Your task to perform on an android device: Open the calendar and show me this week's events Image 0: 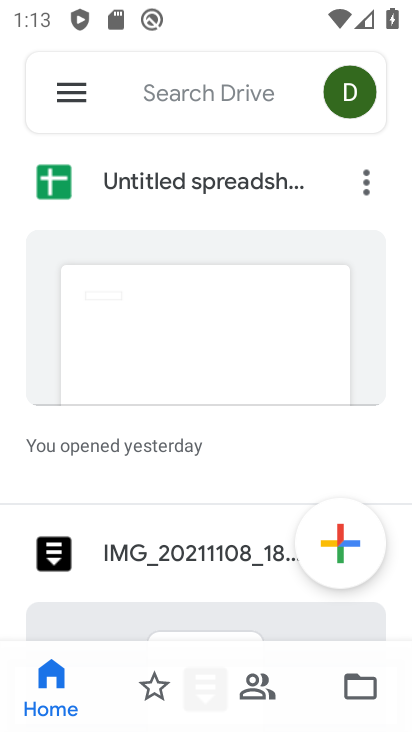
Step 0: press home button
Your task to perform on an android device: Open the calendar and show me this week's events Image 1: 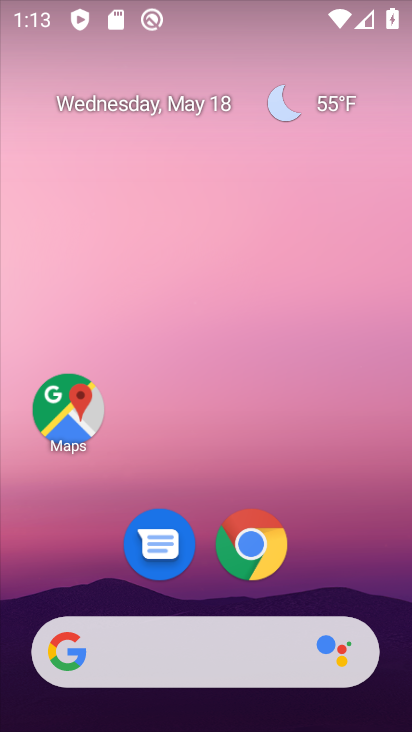
Step 1: click (187, 105)
Your task to perform on an android device: Open the calendar and show me this week's events Image 2: 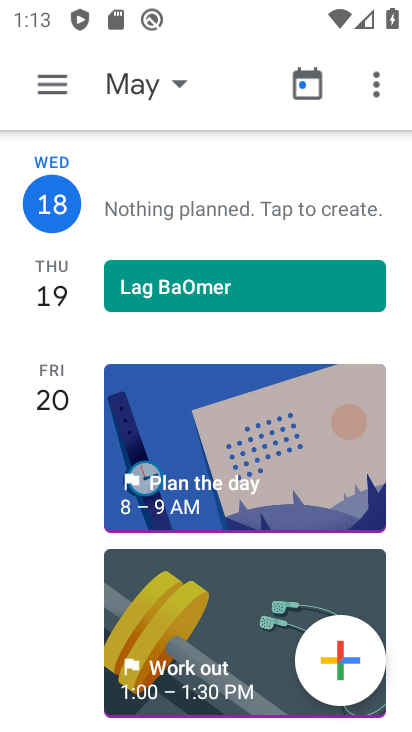
Step 2: click (44, 83)
Your task to perform on an android device: Open the calendar and show me this week's events Image 3: 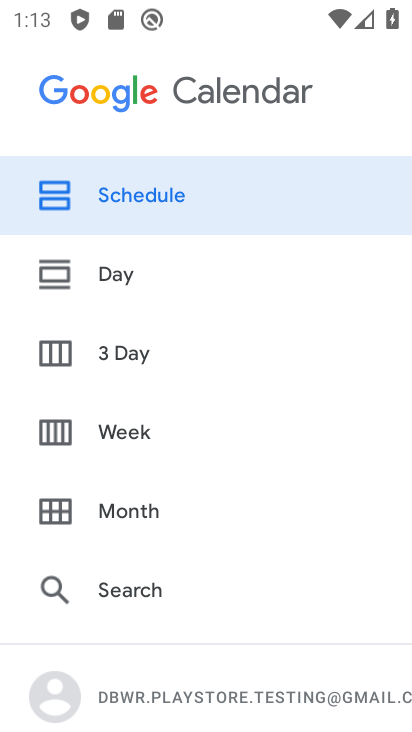
Step 3: drag from (208, 584) to (228, 141)
Your task to perform on an android device: Open the calendar and show me this week's events Image 4: 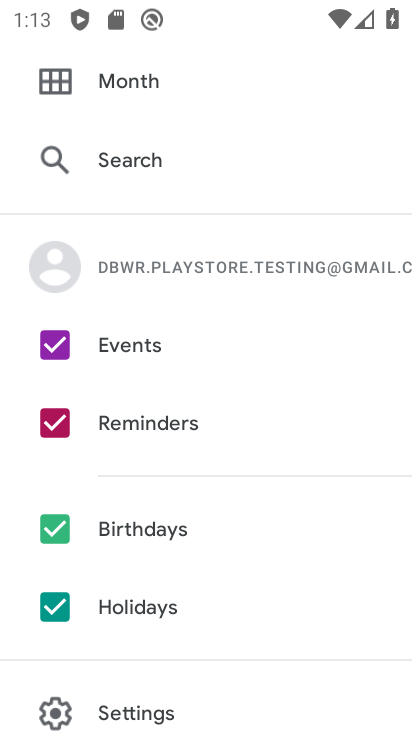
Step 4: click (61, 434)
Your task to perform on an android device: Open the calendar and show me this week's events Image 5: 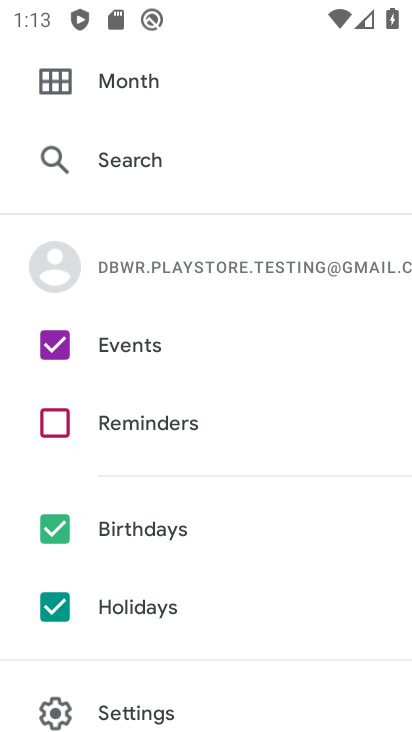
Step 5: click (50, 532)
Your task to perform on an android device: Open the calendar and show me this week's events Image 6: 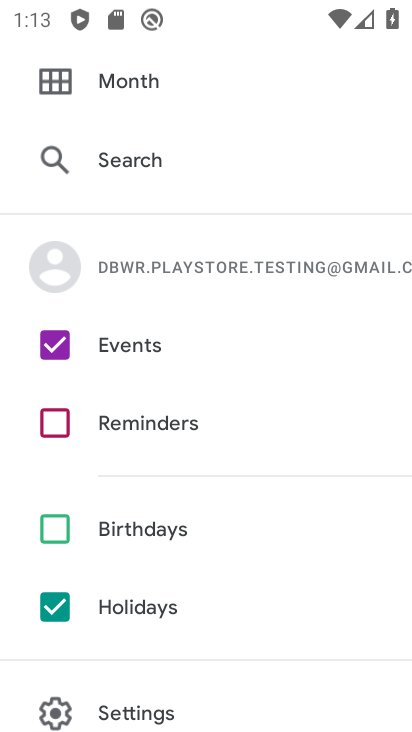
Step 6: click (58, 597)
Your task to perform on an android device: Open the calendar and show me this week's events Image 7: 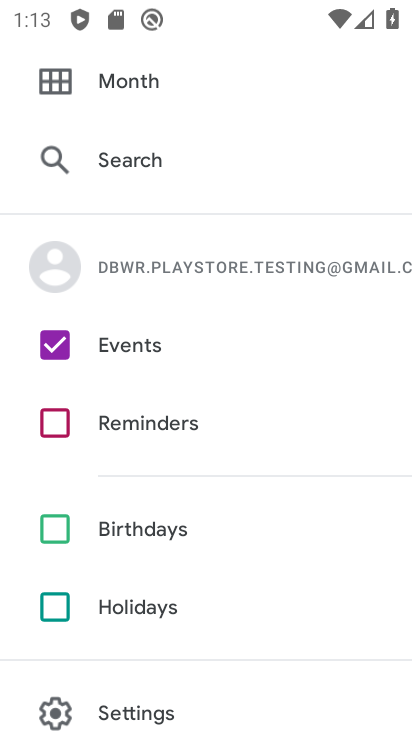
Step 7: drag from (250, 170) to (261, 616)
Your task to perform on an android device: Open the calendar and show me this week's events Image 8: 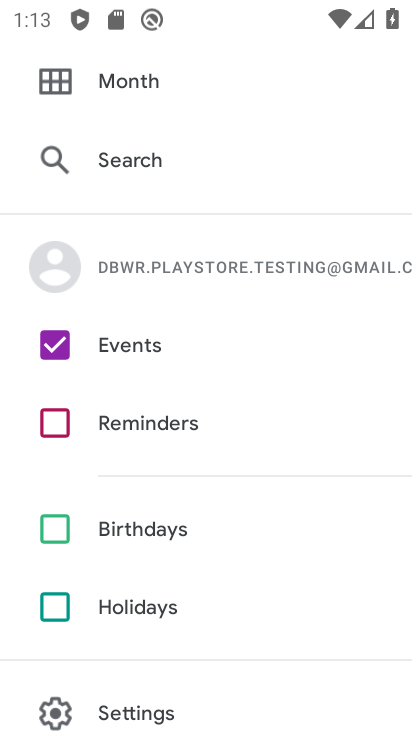
Step 8: drag from (283, 98) to (352, 540)
Your task to perform on an android device: Open the calendar and show me this week's events Image 9: 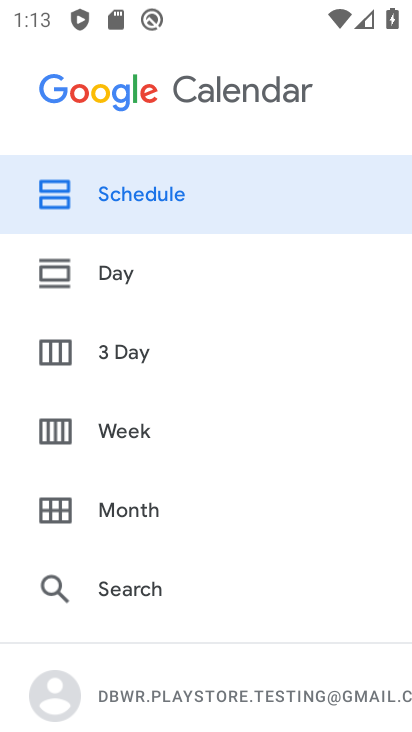
Step 9: click (110, 430)
Your task to perform on an android device: Open the calendar and show me this week's events Image 10: 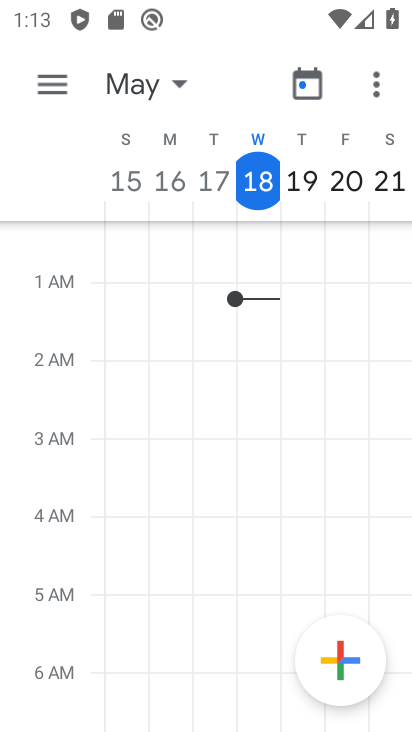
Step 10: task complete